Your task to perform on an android device: make emails show in primary in the gmail app Image 0: 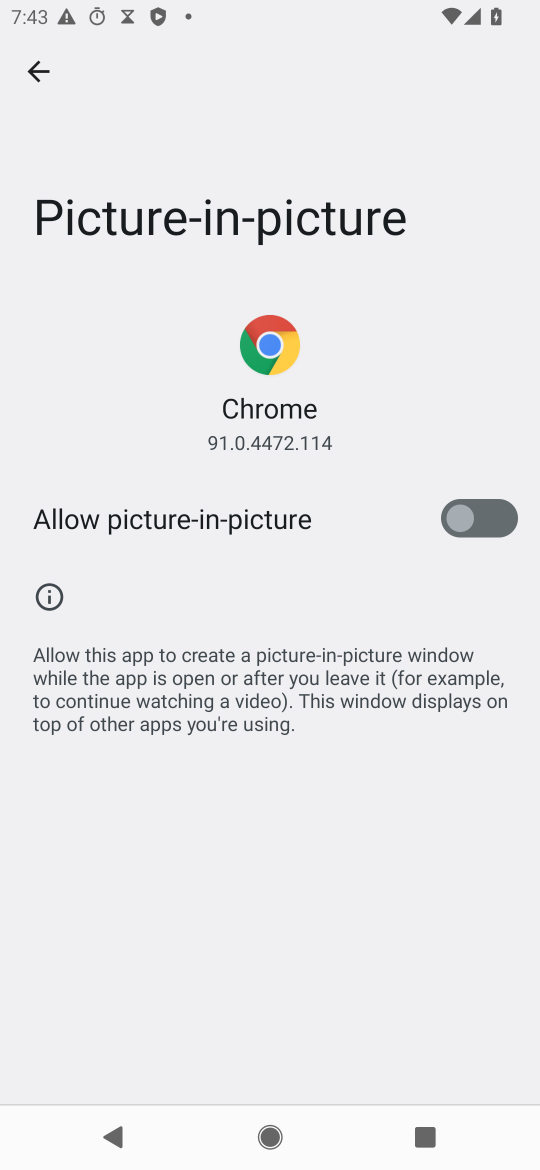
Step 0: press home button
Your task to perform on an android device: make emails show in primary in the gmail app Image 1: 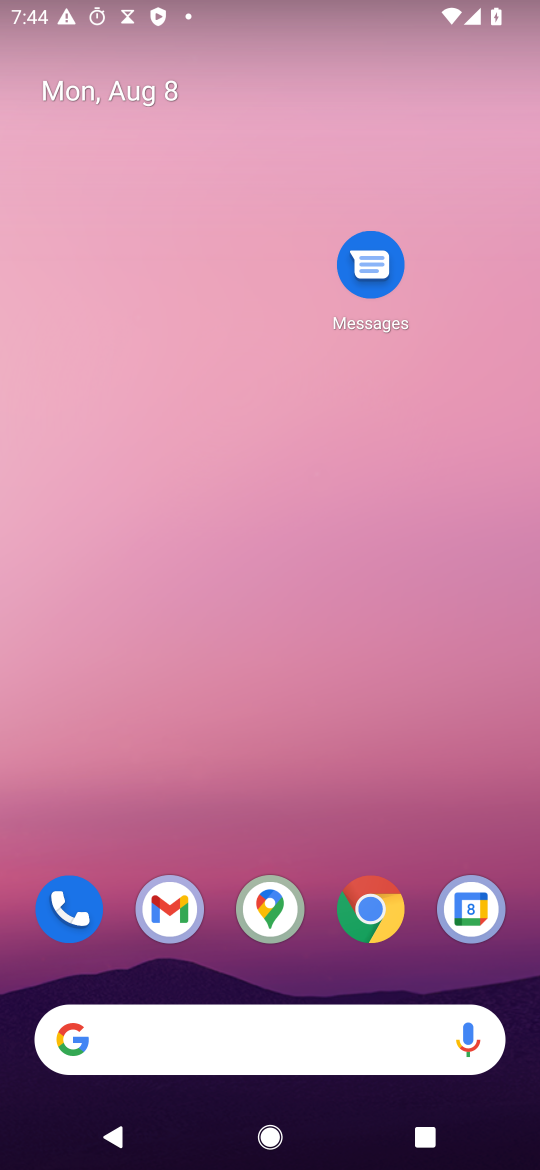
Step 1: click (168, 910)
Your task to perform on an android device: make emails show in primary in the gmail app Image 2: 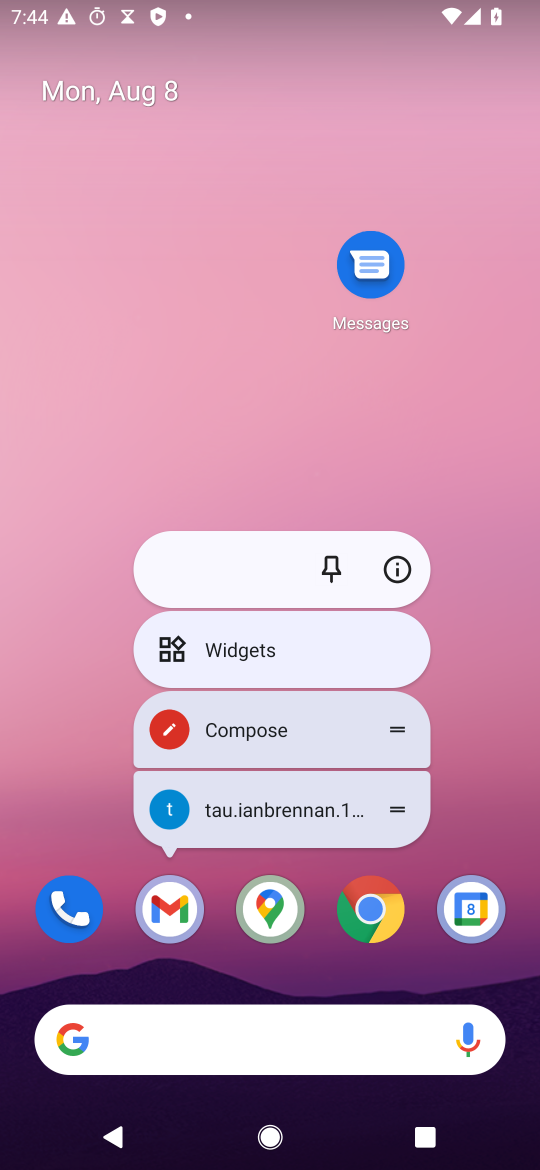
Step 2: click (168, 911)
Your task to perform on an android device: make emails show in primary in the gmail app Image 3: 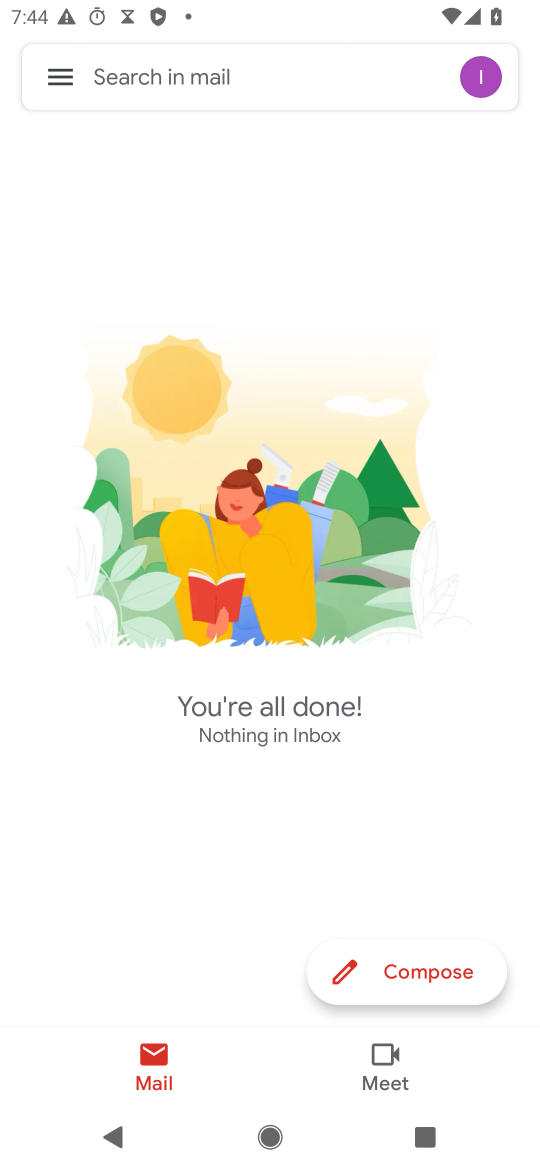
Step 3: click (67, 74)
Your task to perform on an android device: make emails show in primary in the gmail app Image 4: 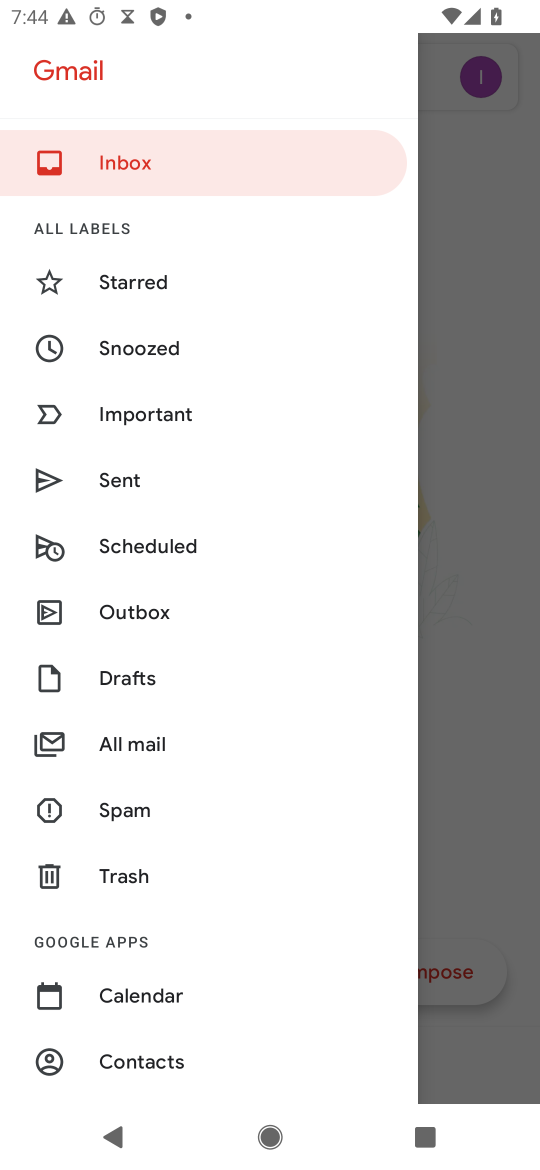
Step 4: drag from (223, 1038) to (306, 188)
Your task to perform on an android device: make emails show in primary in the gmail app Image 5: 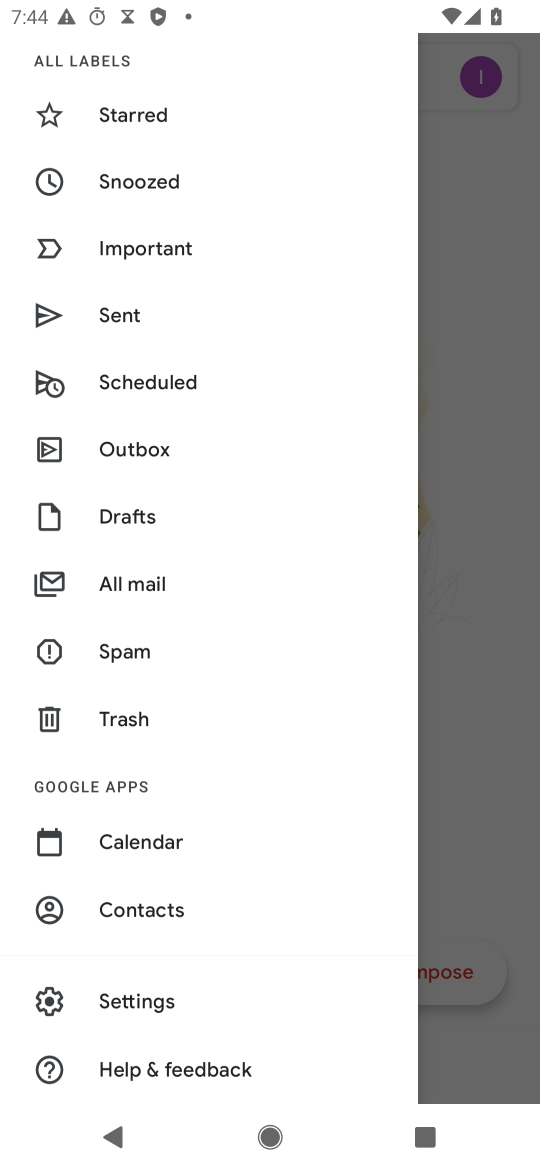
Step 5: click (146, 1006)
Your task to perform on an android device: make emails show in primary in the gmail app Image 6: 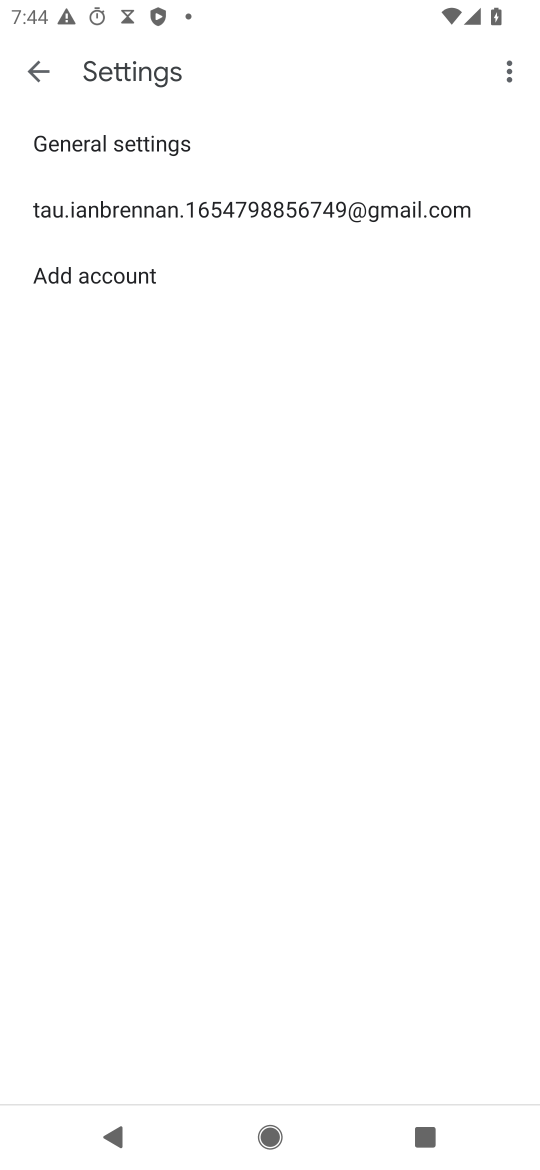
Step 6: click (348, 198)
Your task to perform on an android device: make emails show in primary in the gmail app Image 7: 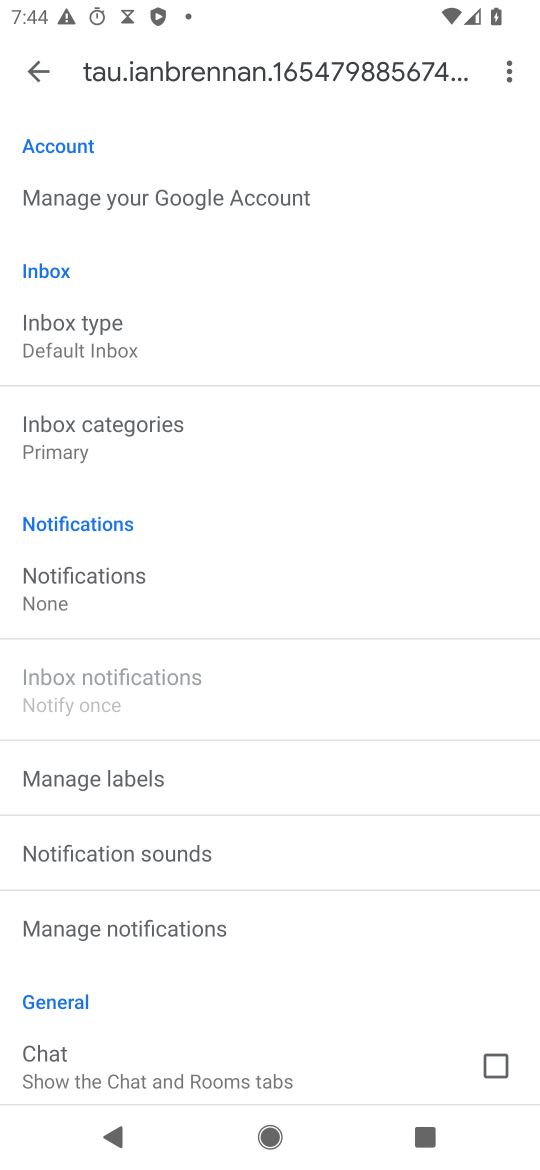
Step 7: task complete